Your task to perform on an android device: See recent photos Image 0: 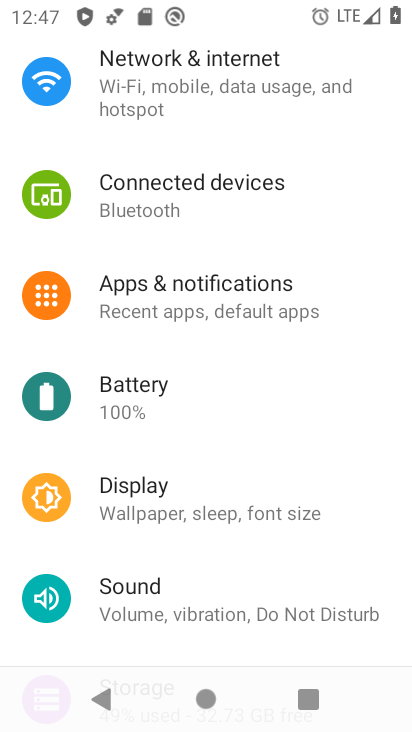
Step 0: press home button
Your task to perform on an android device: See recent photos Image 1: 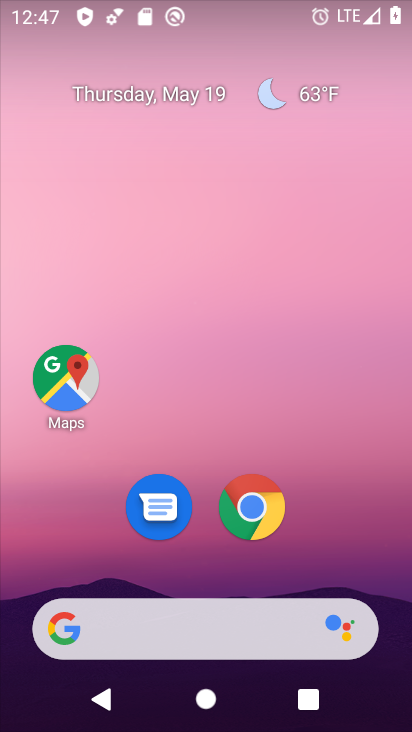
Step 1: drag from (207, 560) to (256, 168)
Your task to perform on an android device: See recent photos Image 2: 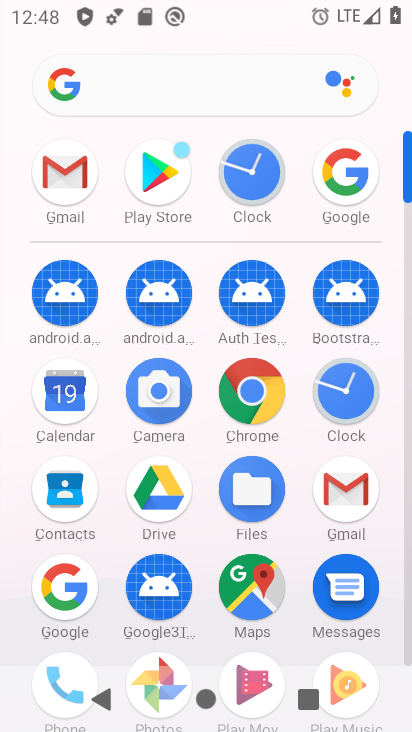
Step 2: drag from (194, 636) to (244, 296)
Your task to perform on an android device: See recent photos Image 3: 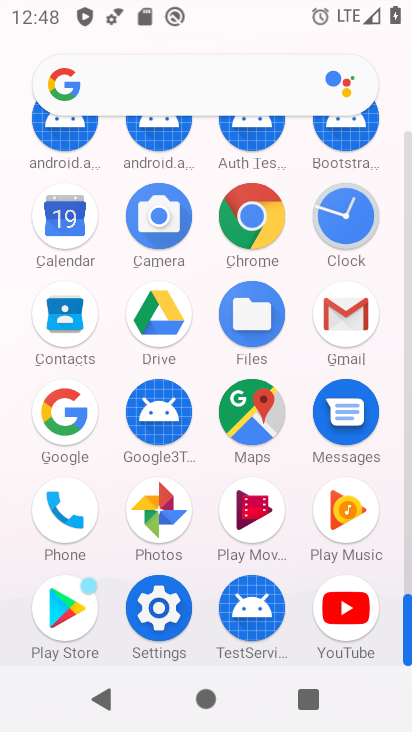
Step 3: click (151, 509)
Your task to perform on an android device: See recent photos Image 4: 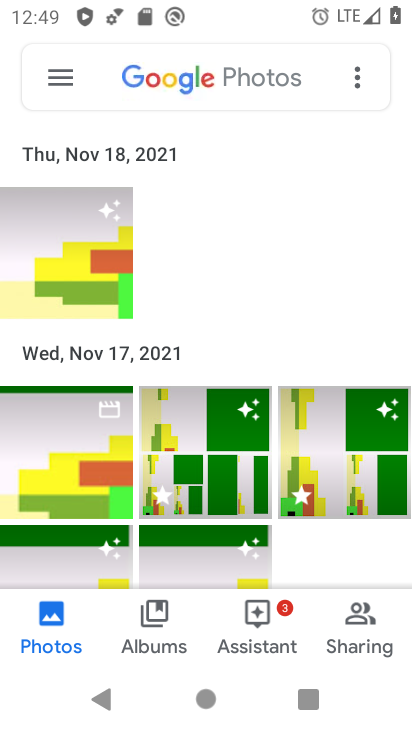
Step 4: click (94, 267)
Your task to perform on an android device: See recent photos Image 5: 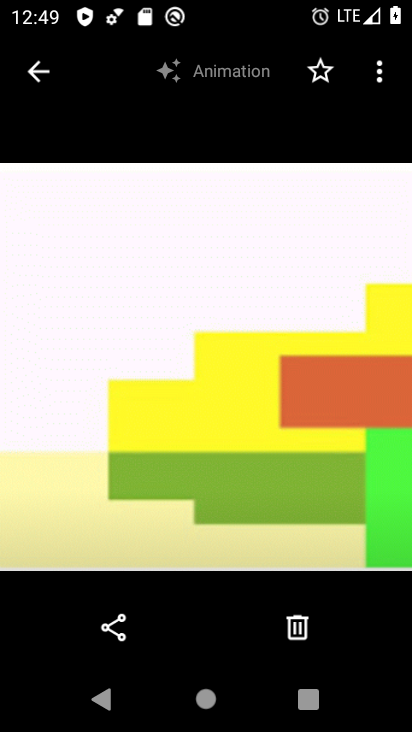
Step 5: task complete